Your task to perform on an android device: Open sound settings Image 0: 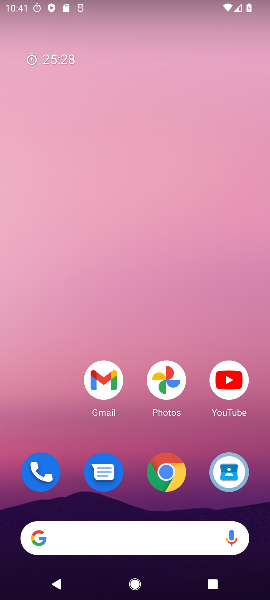
Step 0: drag from (191, 348) to (160, 100)
Your task to perform on an android device: Open sound settings Image 1: 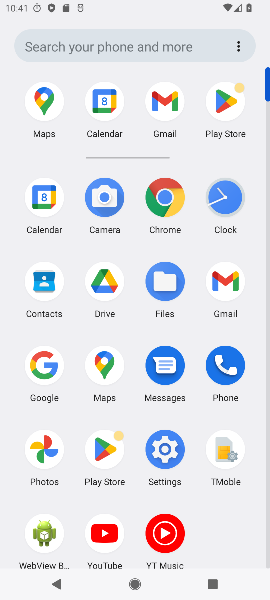
Step 1: click (178, 431)
Your task to perform on an android device: Open sound settings Image 2: 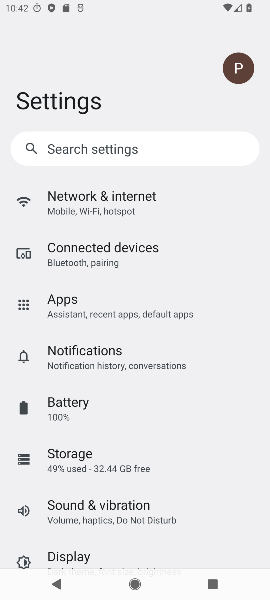
Step 2: click (150, 512)
Your task to perform on an android device: Open sound settings Image 3: 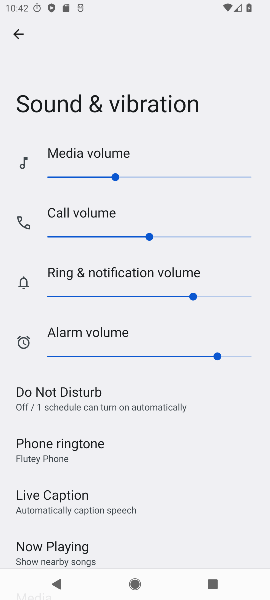
Step 3: task complete